Your task to perform on an android device: Open notification settings Image 0: 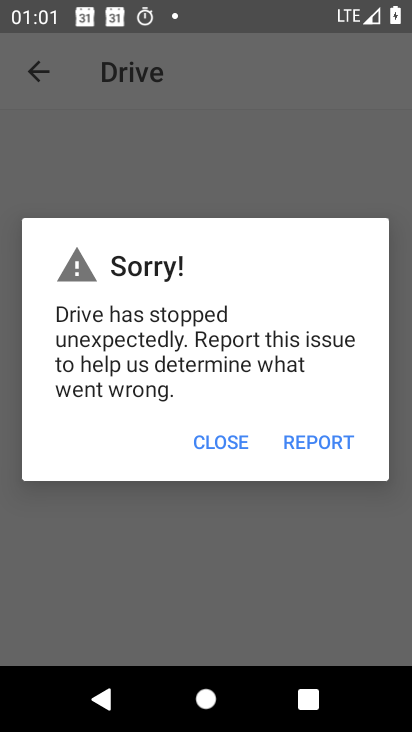
Step 0: press home button
Your task to perform on an android device: Open notification settings Image 1: 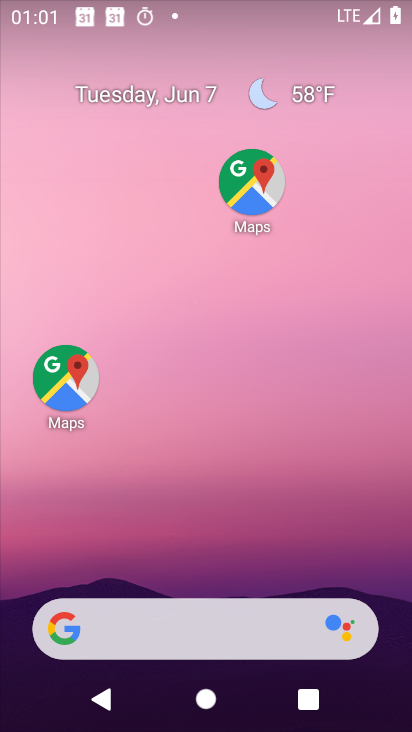
Step 1: drag from (192, 563) to (127, 88)
Your task to perform on an android device: Open notification settings Image 2: 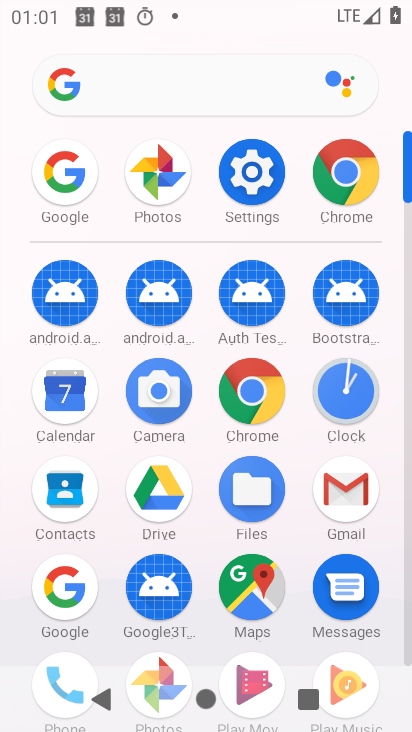
Step 2: click (255, 170)
Your task to perform on an android device: Open notification settings Image 3: 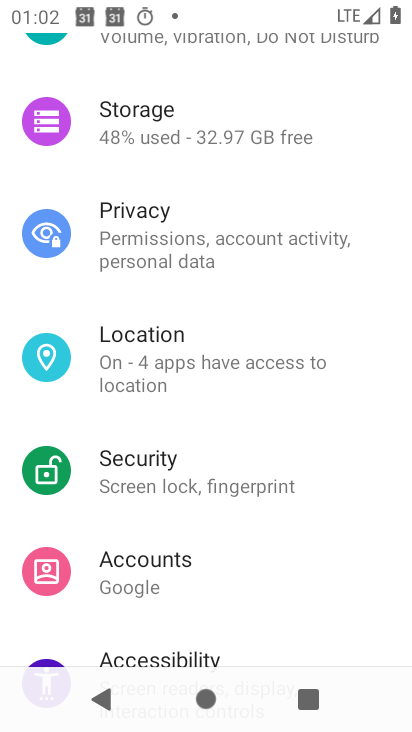
Step 3: drag from (134, 80) to (207, 478)
Your task to perform on an android device: Open notification settings Image 4: 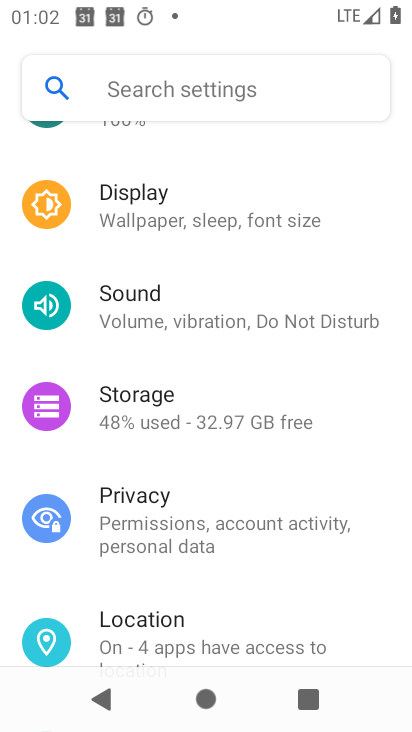
Step 4: drag from (247, 250) to (303, 581)
Your task to perform on an android device: Open notification settings Image 5: 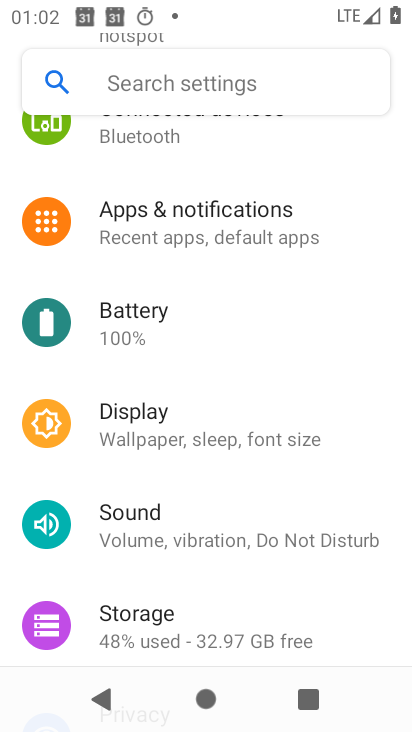
Step 5: click (168, 230)
Your task to perform on an android device: Open notification settings Image 6: 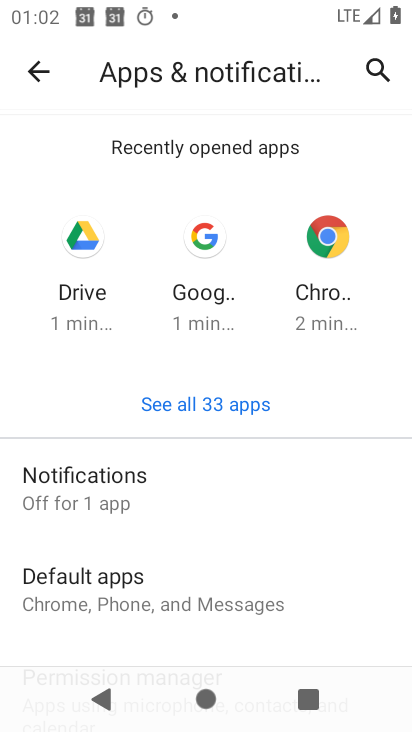
Step 6: click (120, 490)
Your task to perform on an android device: Open notification settings Image 7: 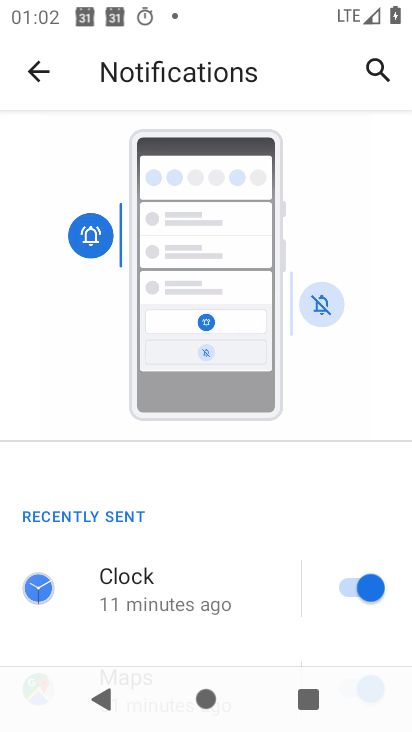
Step 7: task complete